Your task to perform on an android device: toggle airplane mode Image 0: 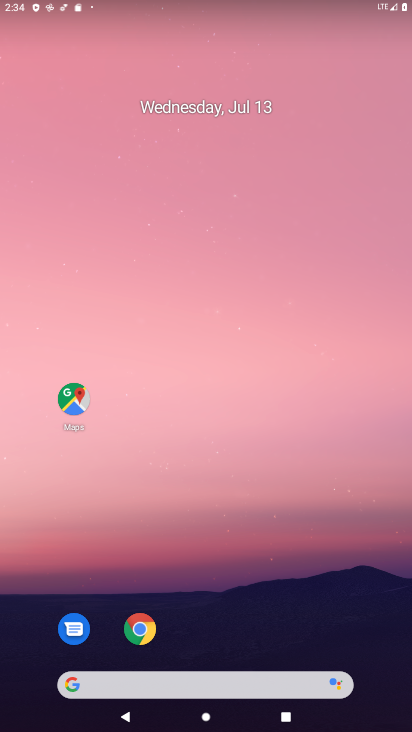
Step 0: drag from (314, 647) to (277, 86)
Your task to perform on an android device: toggle airplane mode Image 1: 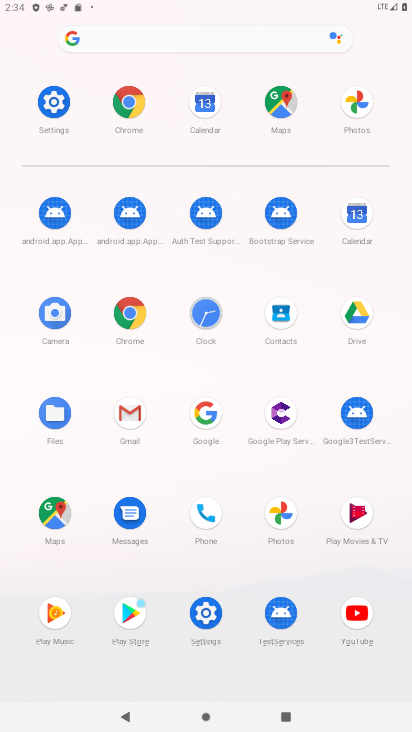
Step 1: click (50, 103)
Your task to perform on an android device: toggle airplane mode Image 2: 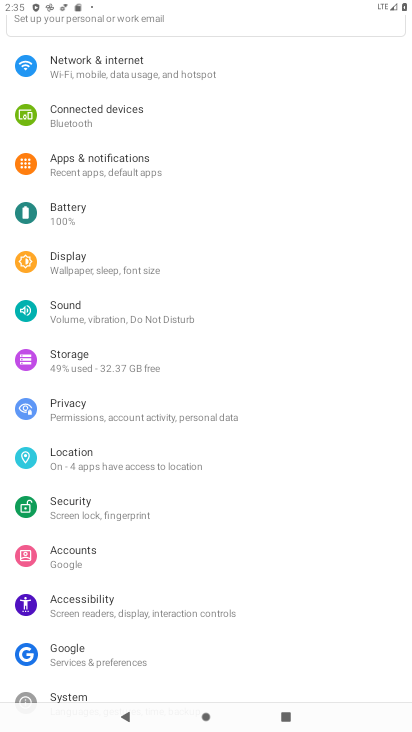
Step 2: click (212, 83)
Your task to perform on an android device: toggle airplane mode Image 3: 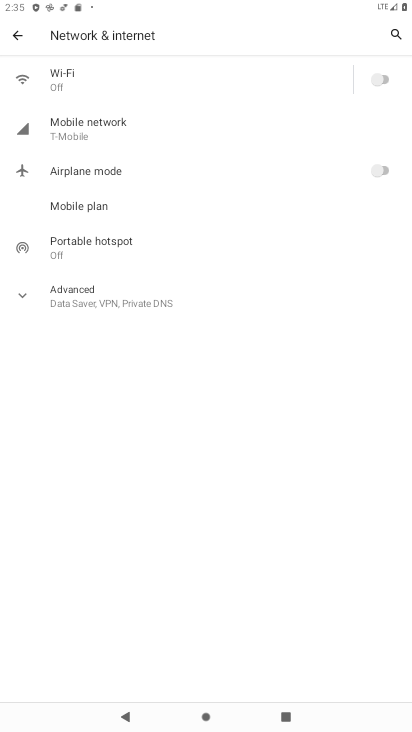
Step 3: click (346, 166)
Your task to perform on an android device: toggle airplane mode Image 4: 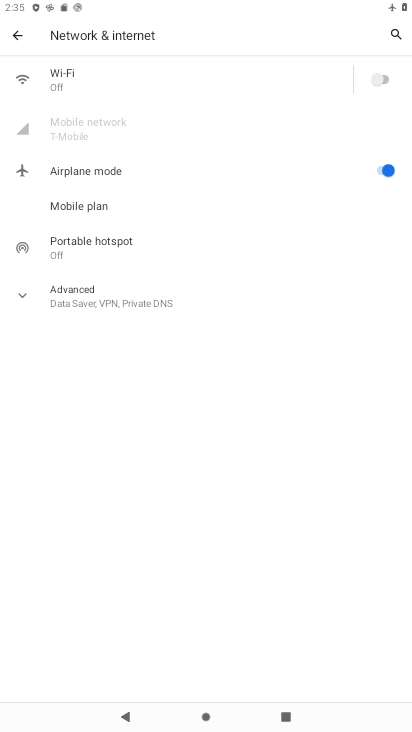
Step 4: task complete